Your task to perform on an android device: Go to Amazon Image 0: 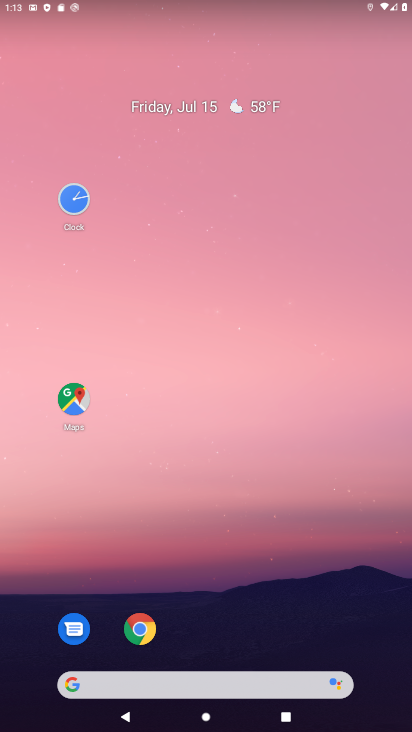
Step 0: click (149, 634)
Your task to perform on an android device: Go to Amazon Image 1: 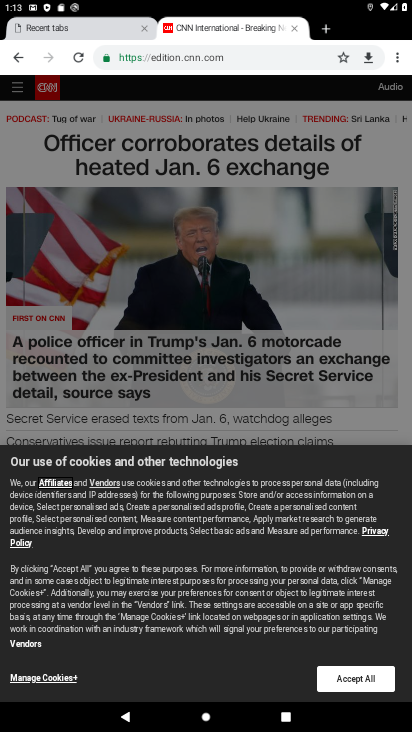
Step 1: click (332, 35)
Your task to perform on an android device: Go to Amazon Image 2: 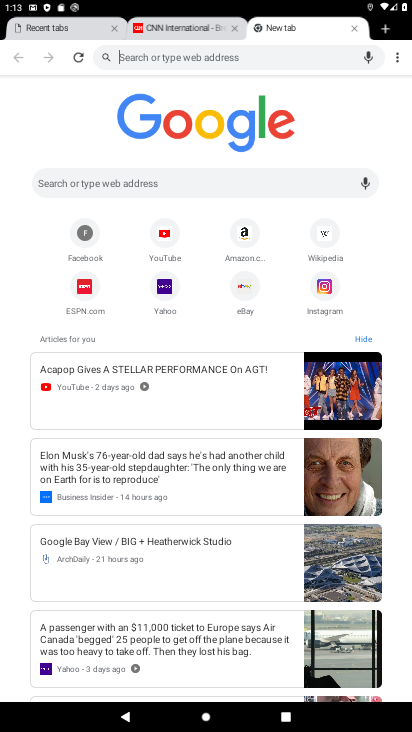
Step 2: click (228, 291)
Your task to perform on an android device: Go to Amazon Image 3: 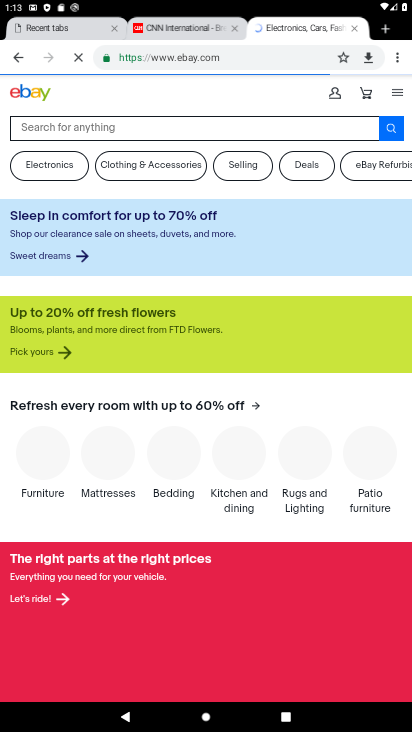
Step 3: task complete